Your task to perform on an android device: turn off priority inbox in the gmail app Image 0: 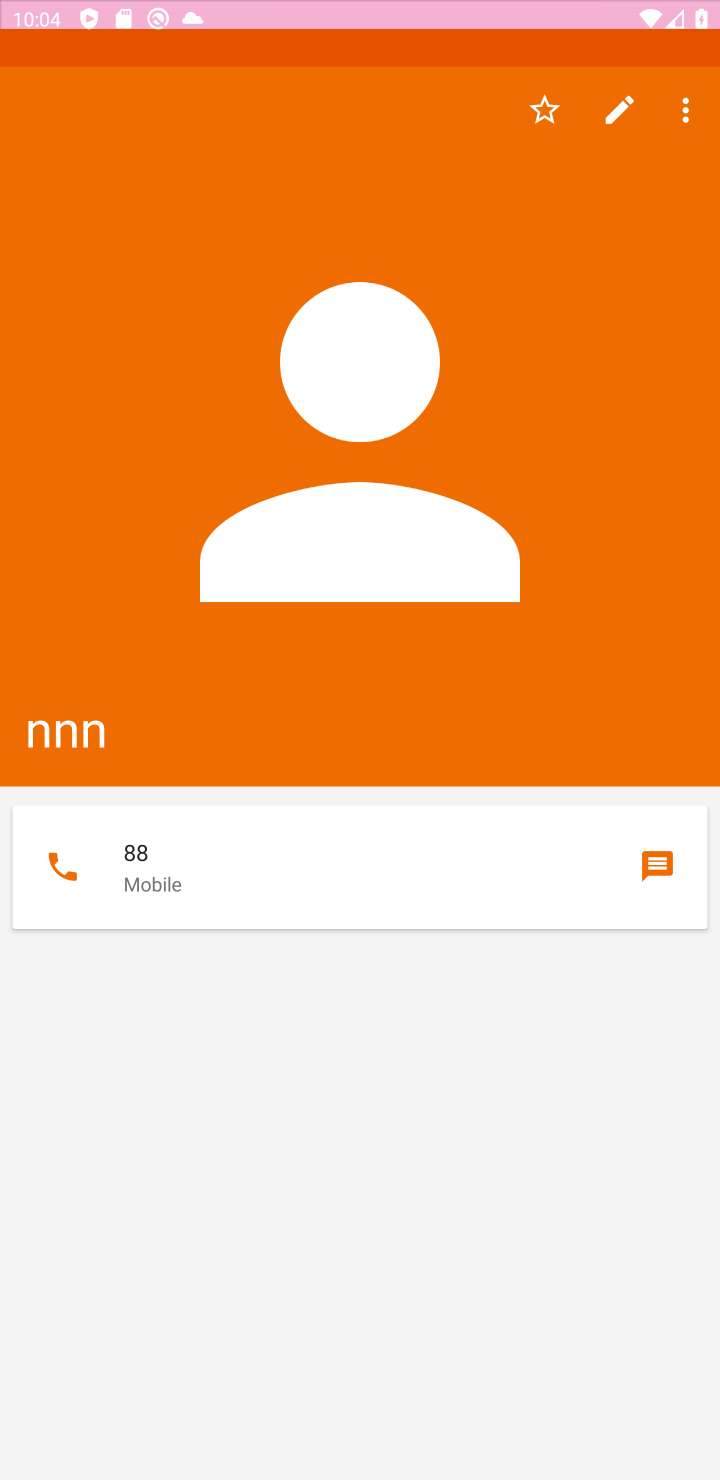
Step 0: press home button
Your task to perform on an android device: turn off priority inbox in the gmail app Image 1: 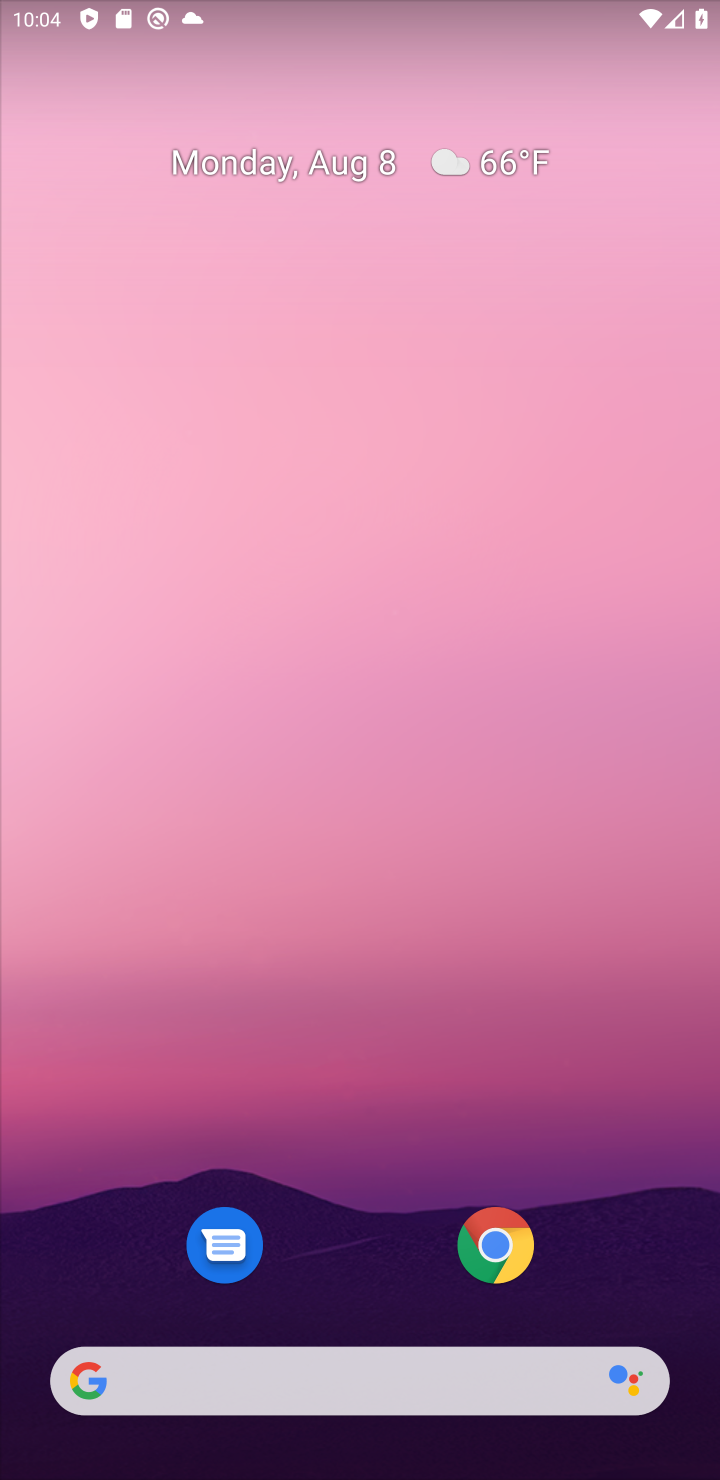
Step 1: drag from (372, 1170) to (396, 78)
Your task to perform on an android device: turn off priority inbox in the gmail app Image 2: 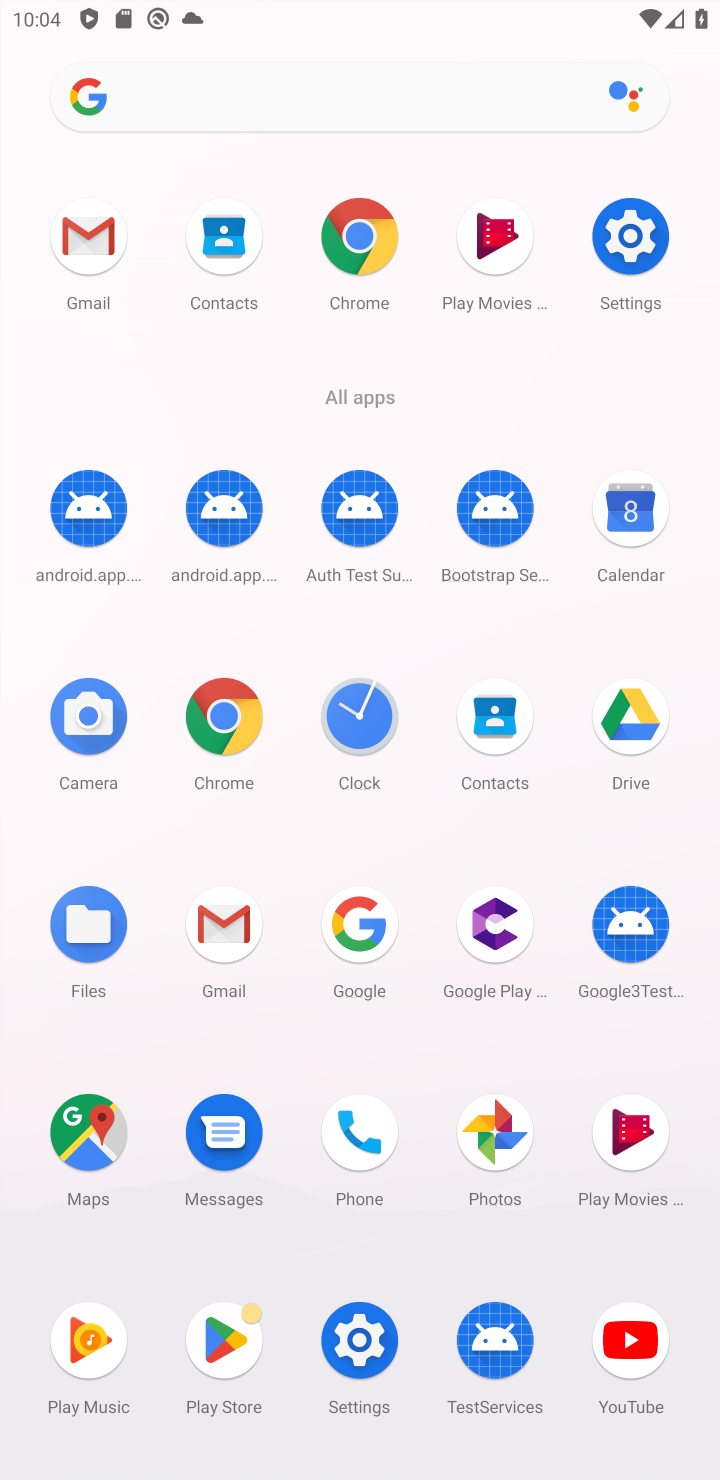
Step 2: click (217, 916)
Your task to perform on an android device: turn off priority inbox in the gmail app Image 3: 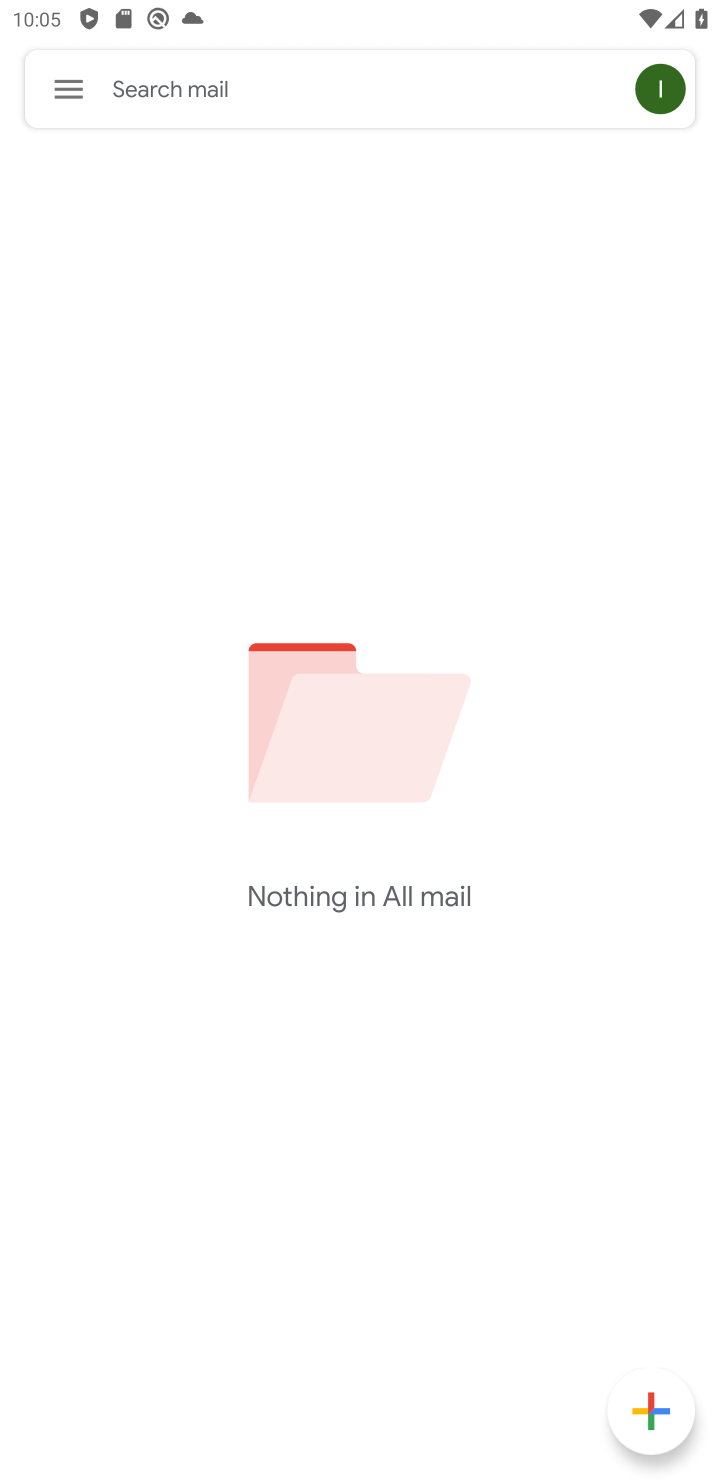
Step 3: click (55, 101)
Your task to perform on an android device: turn off priority inbox in the gmail app Image 4: 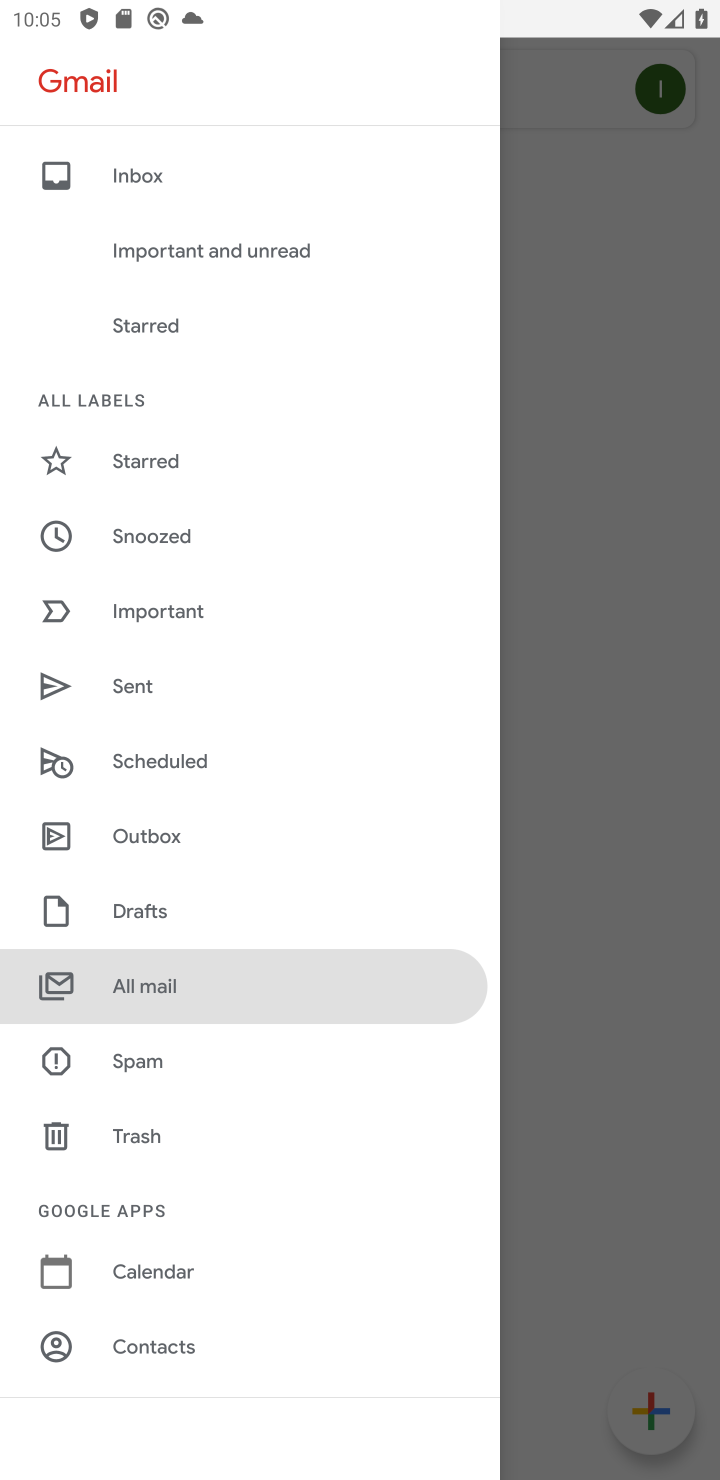
Step 4: drag from (245, 1275) to (193, 678)
Your task to perform on an android device: turn off priority inbox in the gmail app Image 5: 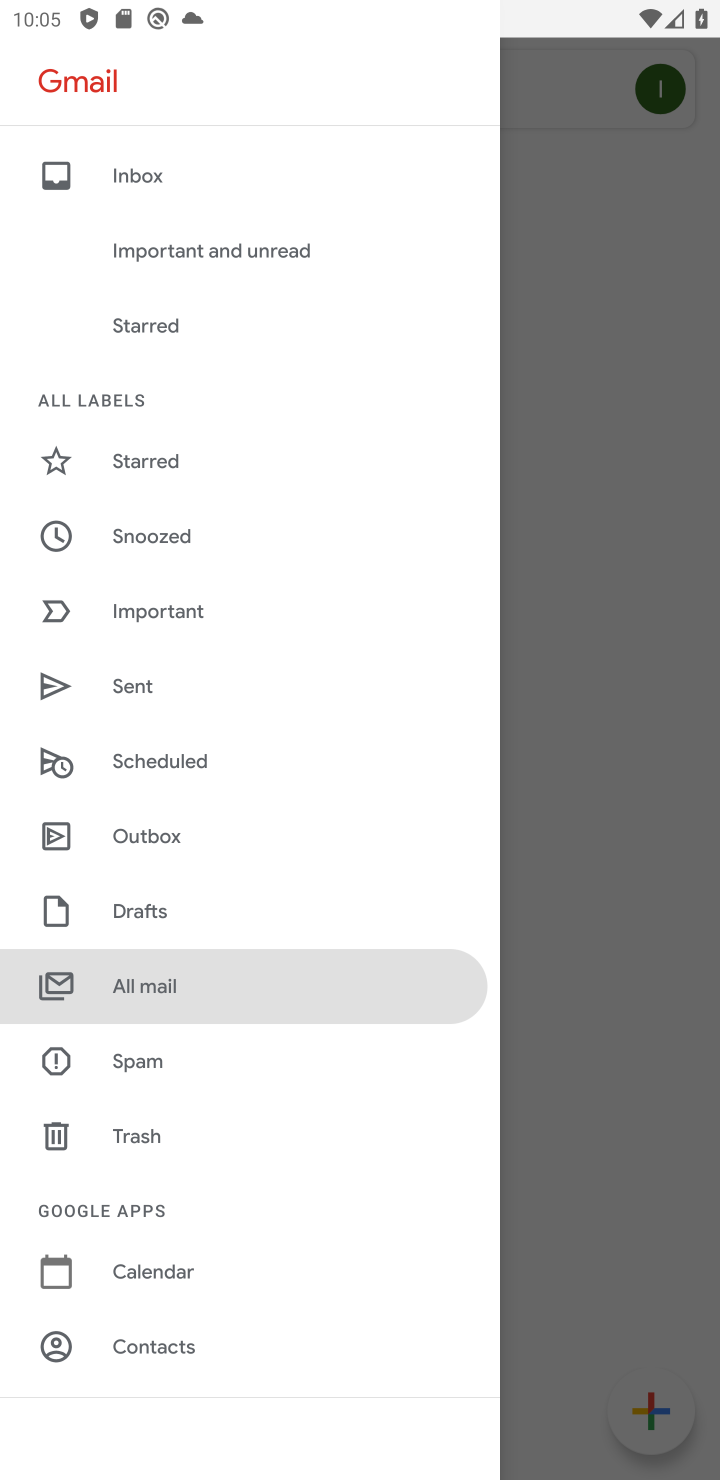
Step 5: drag from (281, 1231) to (285, 795)
Your task to perform on an android device: turn off priority inbox in the gmail app Image 6: 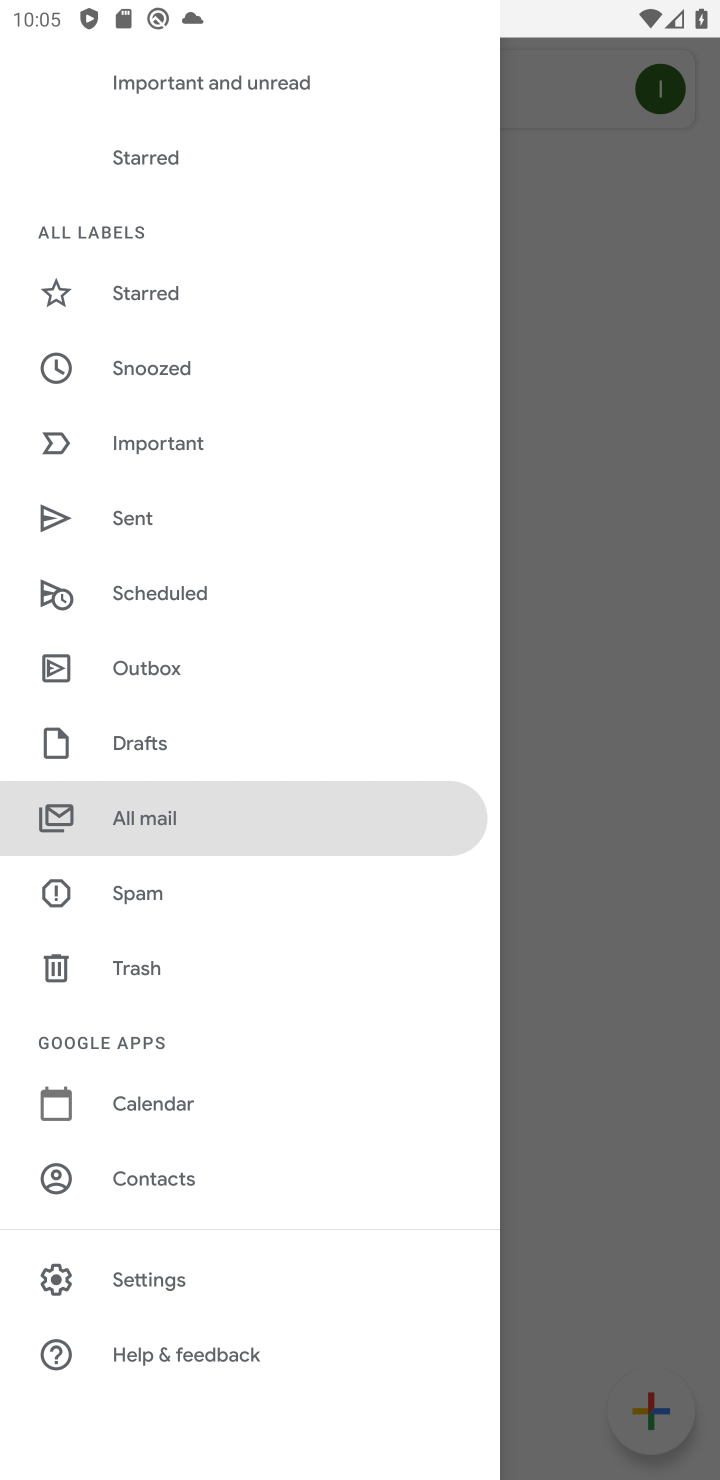
Step 6: click (137, 1269)
Your task to perform on an android device: turn off priority inbox in the gmail app Image 7: 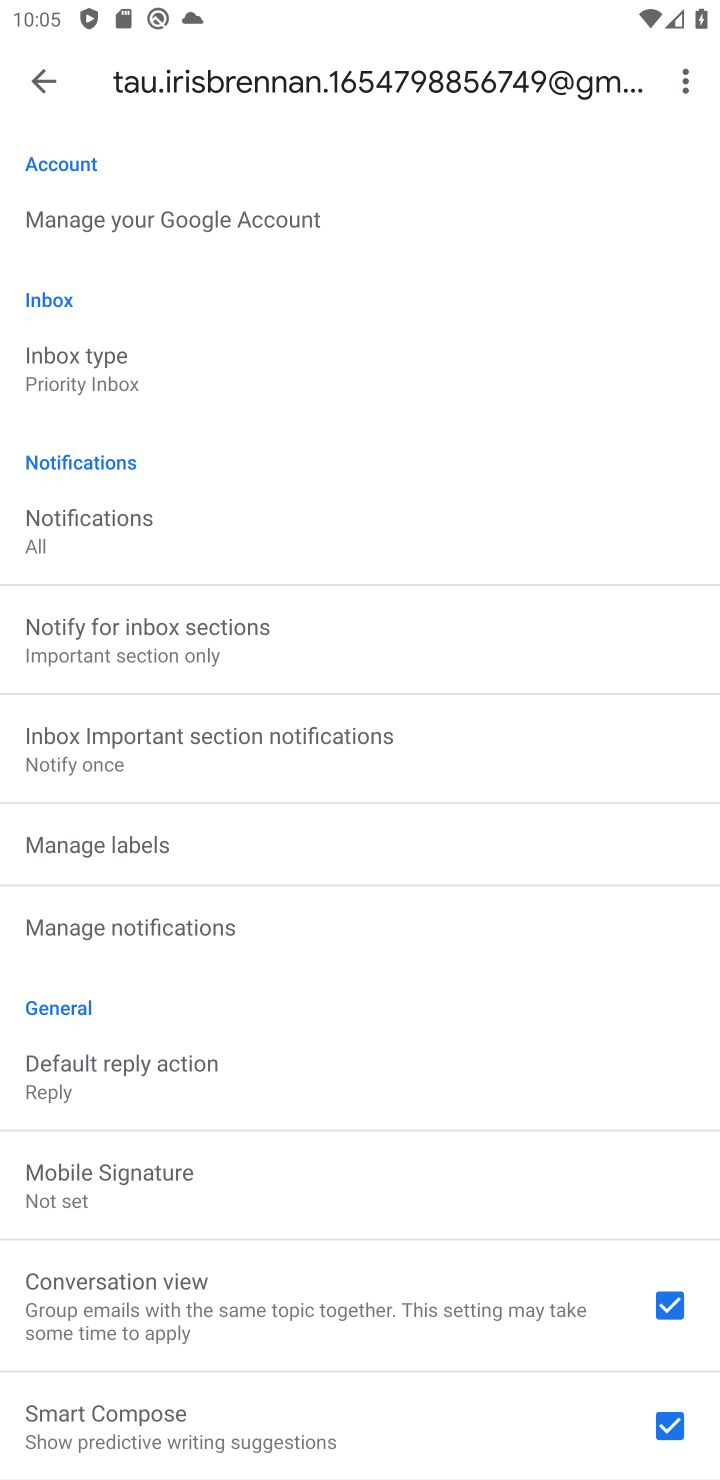
Step 7: click (66, 358)
Your task to perform on an android device: turn off priority inbox in the gmail app Image 8: 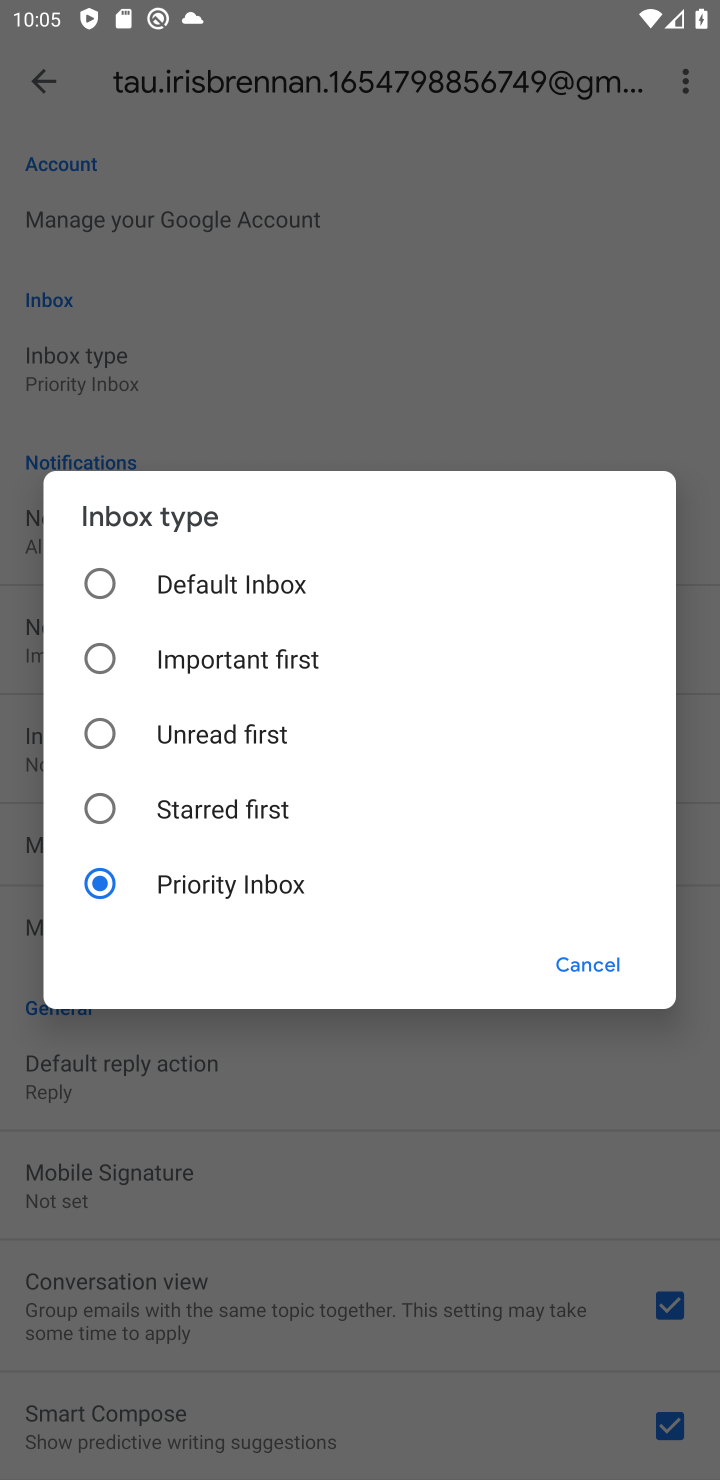
Step 8: click (96, 590)
Your task to perform on an android device: turn off priority inbox in the gmail app Image 9: 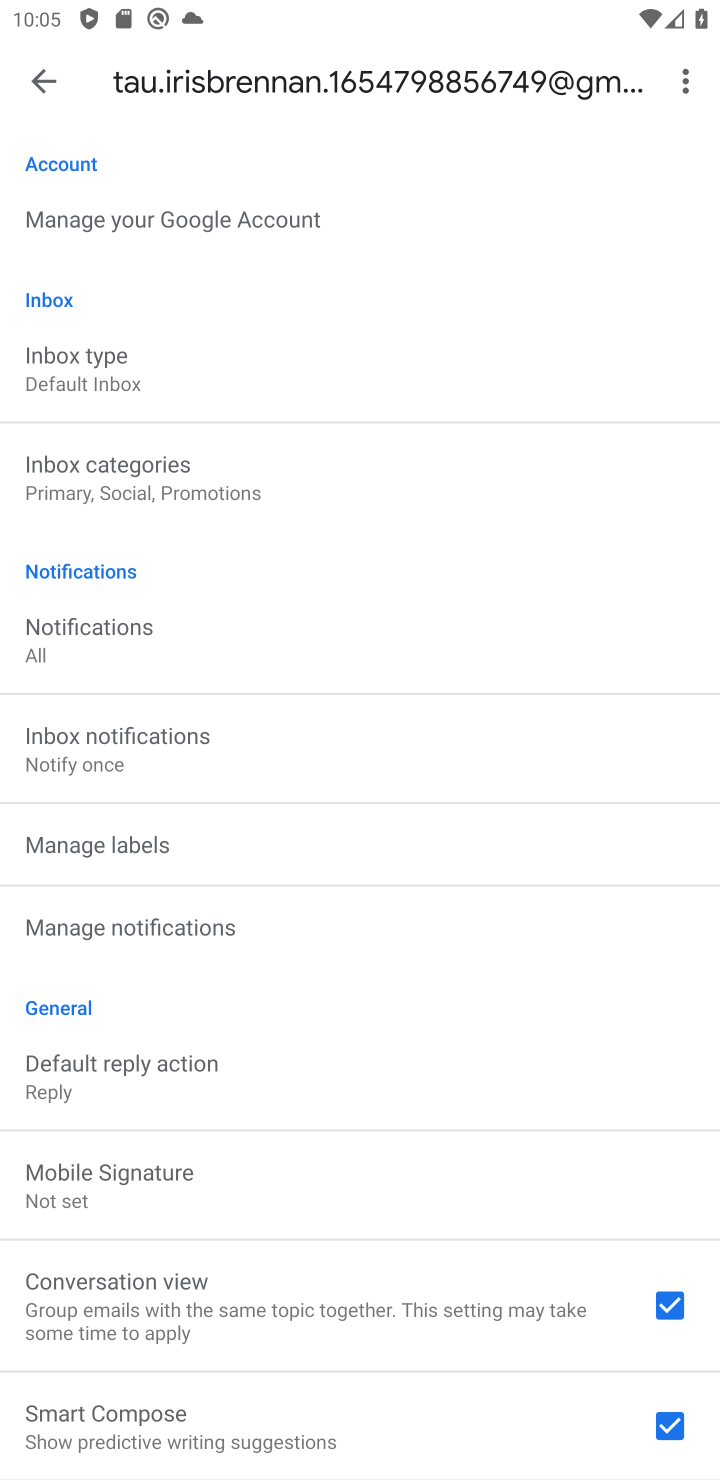
Step 9: task complete